Your task to perform on an android device: Open CNN.com Image 0: 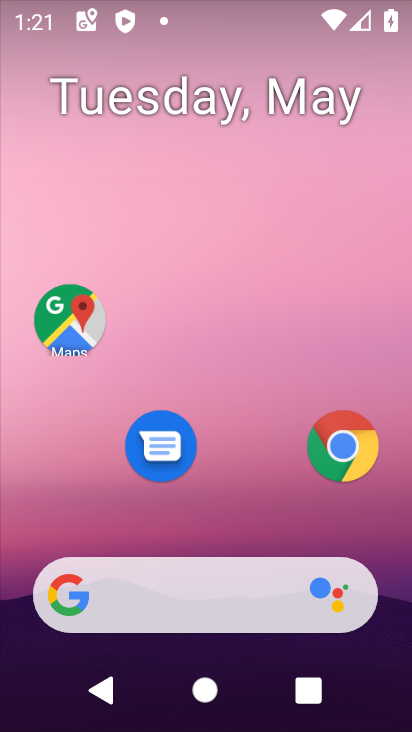
Step 0: click (343, 455)
Your task to perform on an android device: Open CNN.com Image 1: 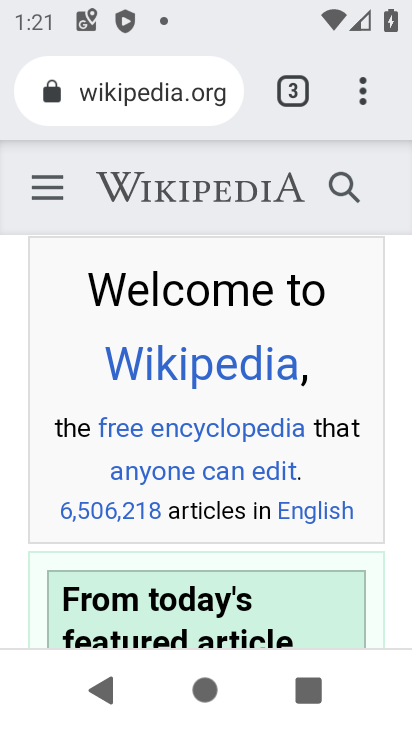
Step 1: click (295, 102)
Your task to perform on an android device: Open CNN.com Image 2: 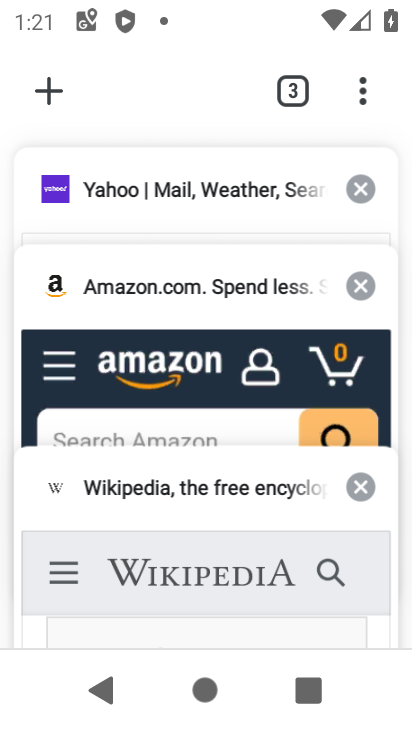
Step 2: click (29, 84)
Your task to perform on an android device: Open CNN.com Image 3: 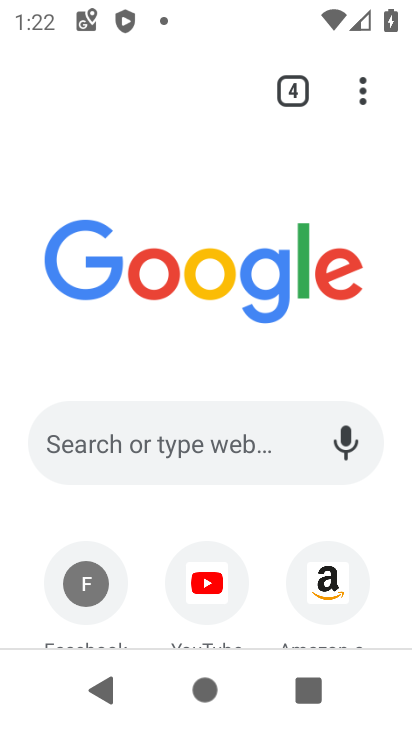
Step 3: click (201, 446)
Your task to perform on an android device: Open CNN.com Image 4: 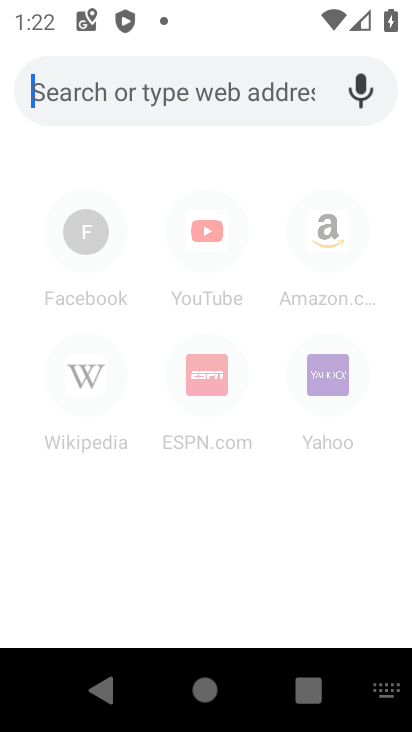
Step 4: type "cnn"
Your task to perform on an android device: Open CNN.com Image 5: 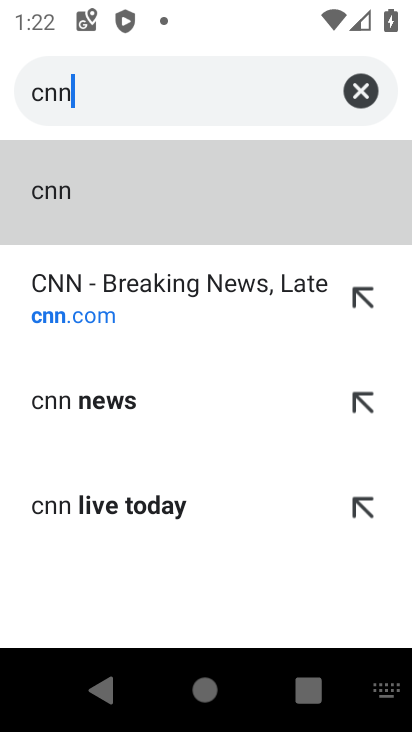
Step 5: click (225, 273)
Your task to perform on an android device: Open CNN.com Image 6: 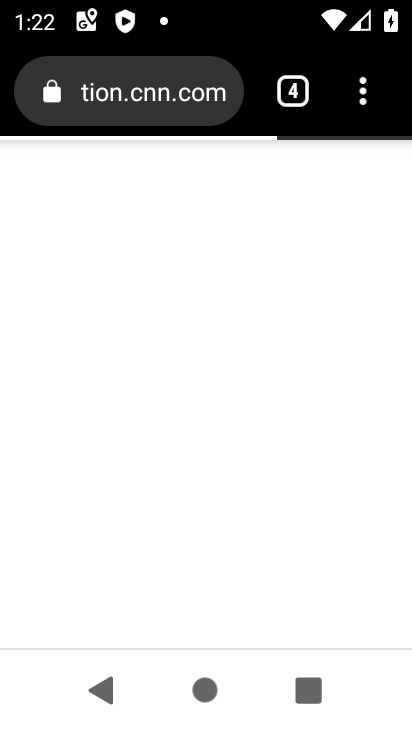
Step 6: task complete